Your task to perform on an android device: find which apps use the phone's location Image 0: 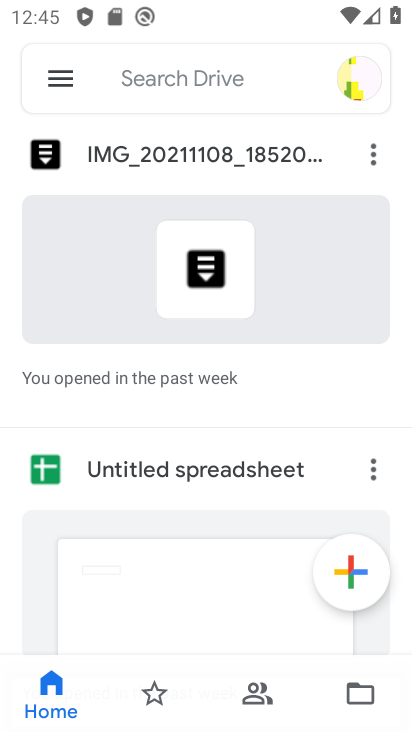
Step 0: press home button
Your task to perform on an android device: find which apps use the phone's location Image 1: 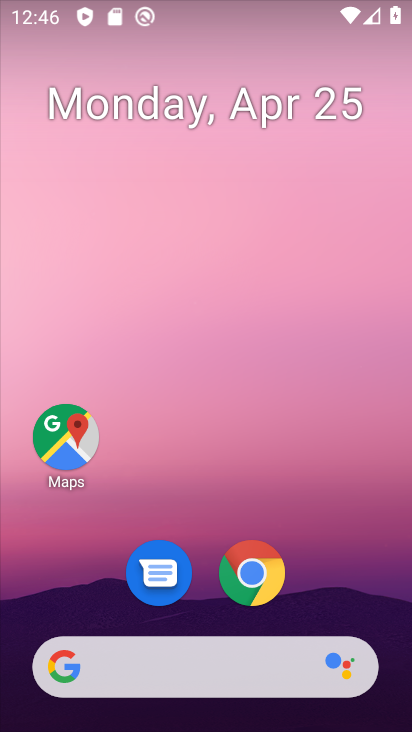
Step 1: drag from (203, 595) to (222, 9)
Your task to perform on an android device: find which apps use the phone's location Image 2: 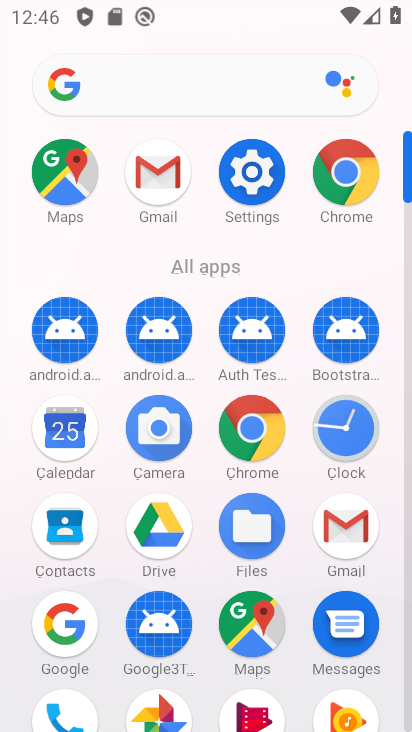
Step 2: click (260, 178)
Your task to perform on an android device: find which apps use the phone's location Image 3: 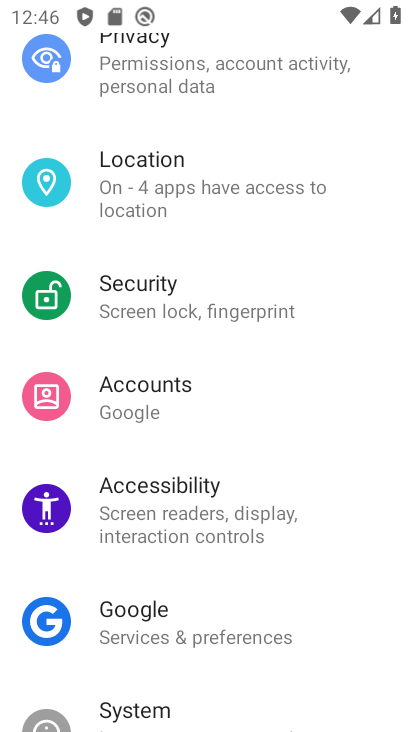
Step 3: click (229, 173)
Your task to perform on an android device: find which apps use the phone's location Image 4: 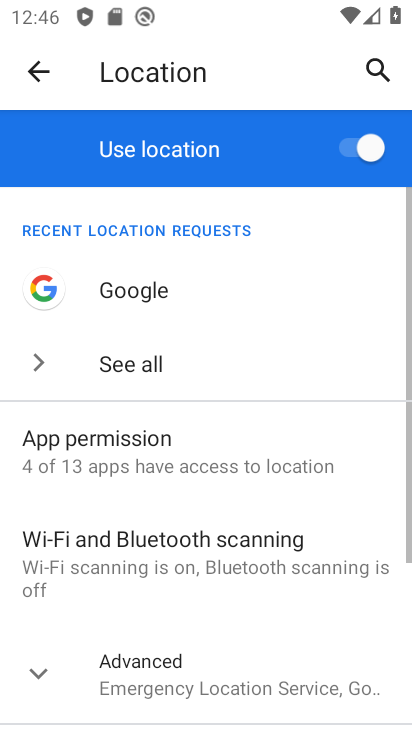
Step 4: click (113, 363)
Your task to perform on an android device: find which apps use the phone's location Image 5: 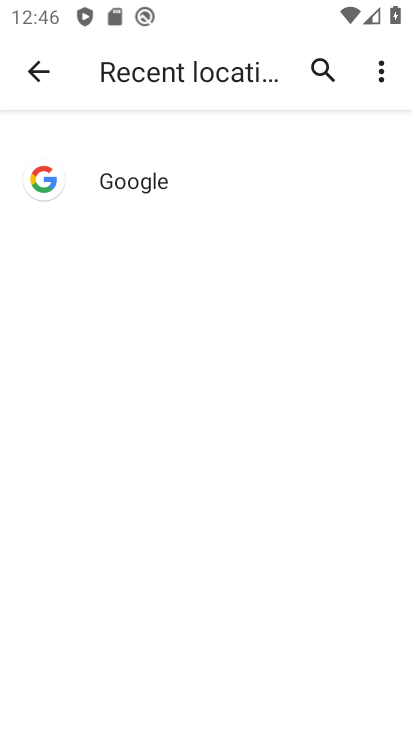
Step 5: click (26, 77)
Your task to perform on an android device: find which apps use the phone's location Image 6: 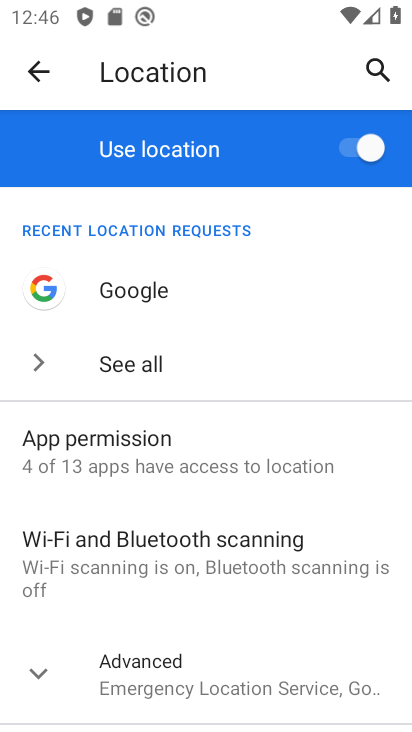
Step 6: drag from (243, 515) to (209, 238)
Your task to perform on an android device: find which apps use the phone's location Image 7: 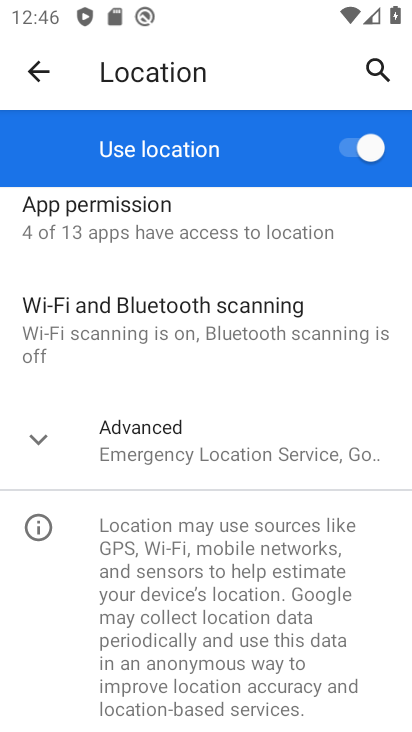
Step 7: click (209, 238)
Your task to perform on an android device: find which apps use the phone's location Image 8: 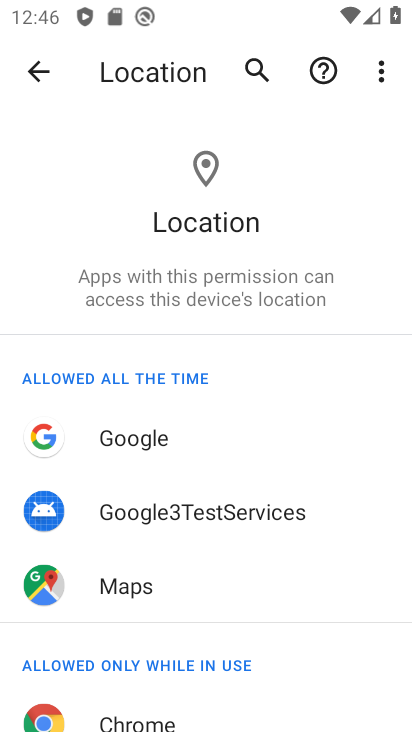
Step 8: task complete